Your task to perform on an android device: Open settings on Google Maps Image 0: 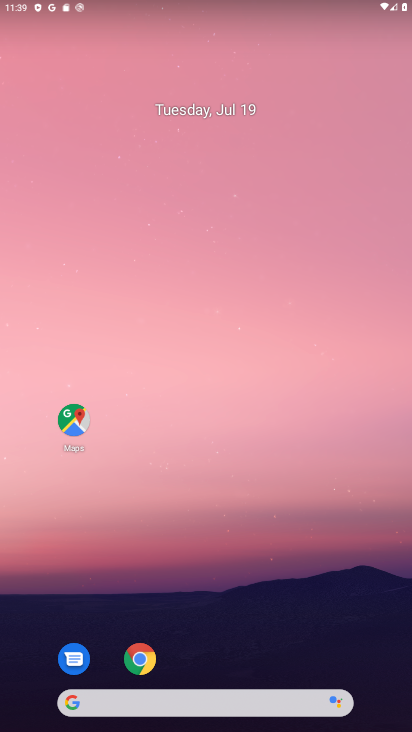
Step 0: drag from (301, 629) to (279, 167)
Your task to perform on an android device: Open settings on Google Maps Image 1: 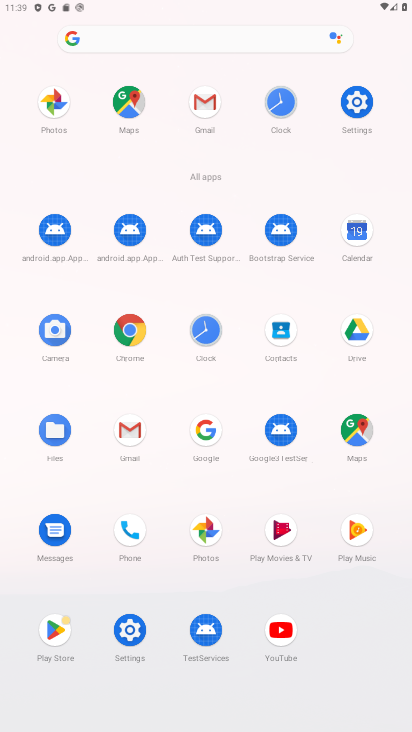
Step 1: click (358, 436)
Your task to perform on an android device: Open settings on Google Maps Image 2: 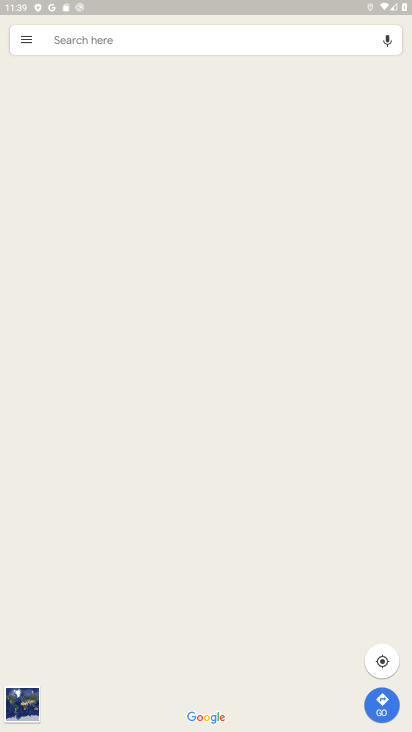
Step 2: click (30, 35)
Your task to perform on an android device: Open settings on Google Maps Image 3: 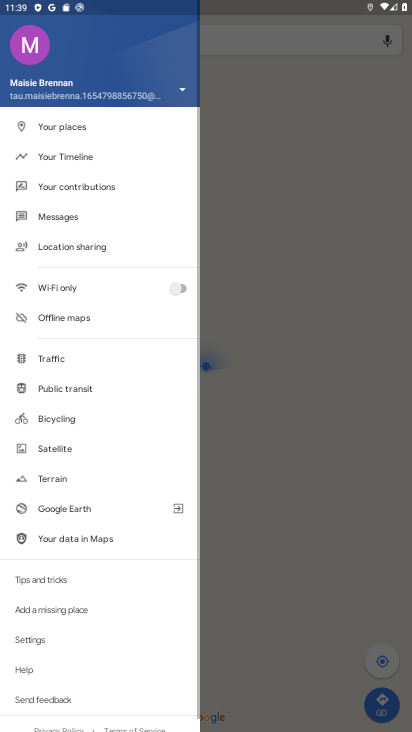
Step 3: click (41, 639)
Your task to perform on an android device: Open settings on Google Maps Image 4: 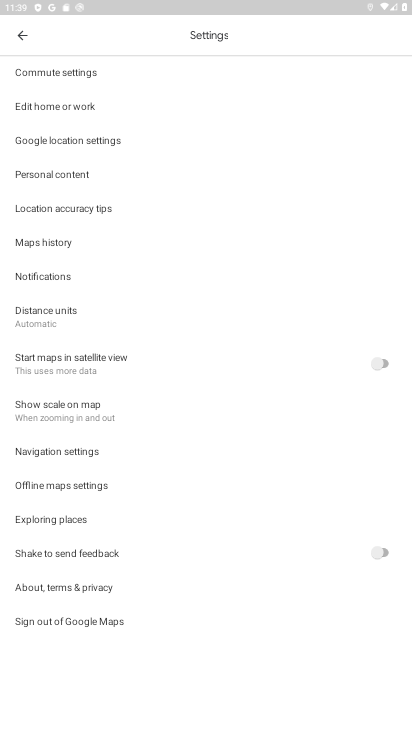
Step 4: task complete